Your task to perform on an android device: Open the calendar and show me this week's events? Image 0: 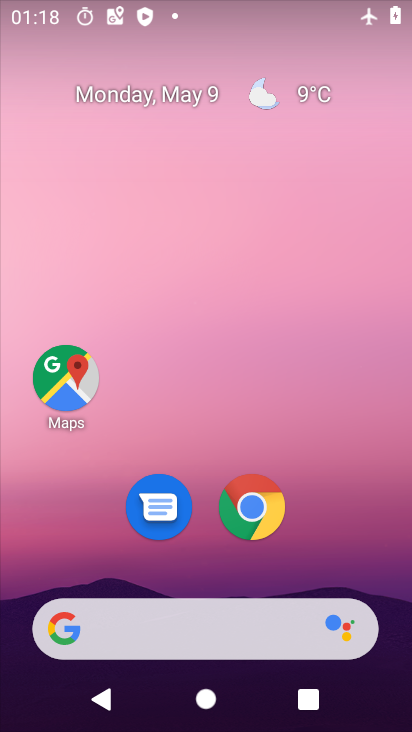
Step 0: drag from (205, 721) to (201, 198)
Your task to perform on an android device: Open the calendar and show me this week's events? Image 1: 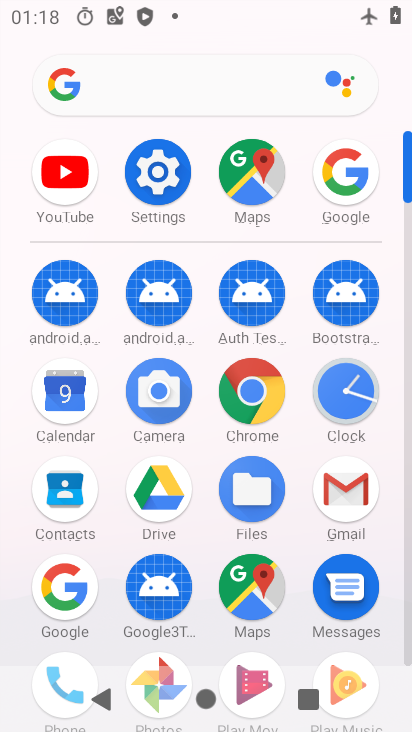
Step 1: click (55, 406)
Your task to perform on an android device: Open the calendar and show me this week's events? Image 2: 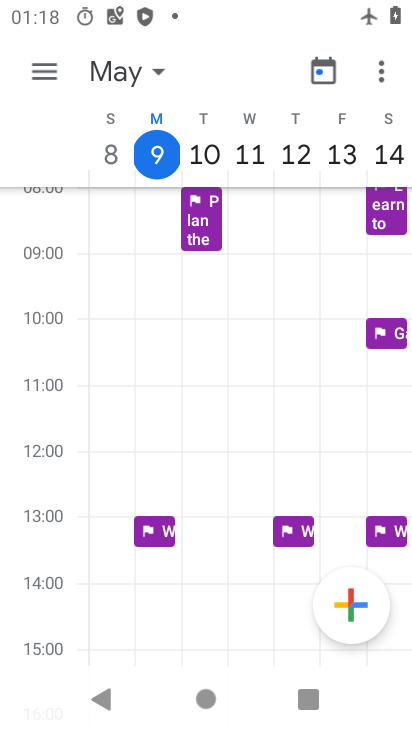
Step 2: task complete